Your task to perform on an android device: see sites visited before in the chrome app Image 0: 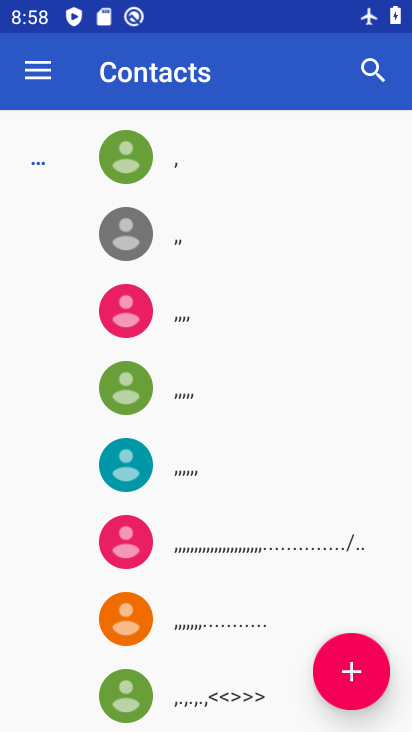
Step 0: press home button
Your task to perform on an android device: see sites visited before in the chrome app Image 1: 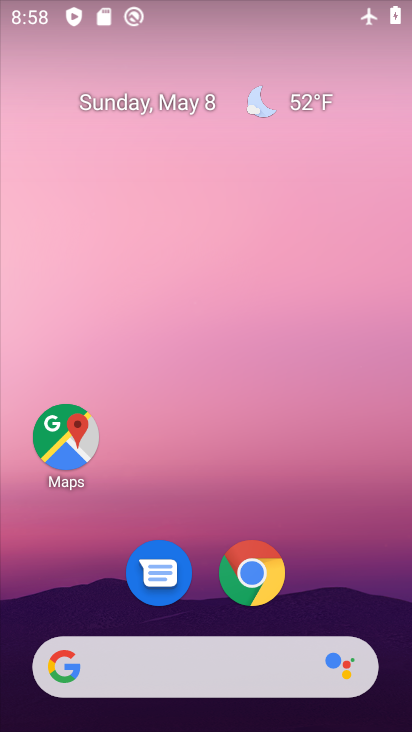
Step 1: click (247, 564)
Your task to perform on an android device: see sites visited before in the chrome app Image 2: 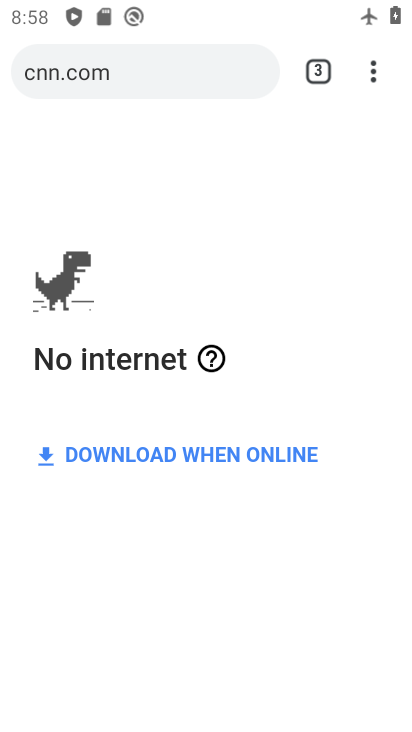
Step 2: task complete